Your task to perform on an android device: Go to Amazon Image 0: 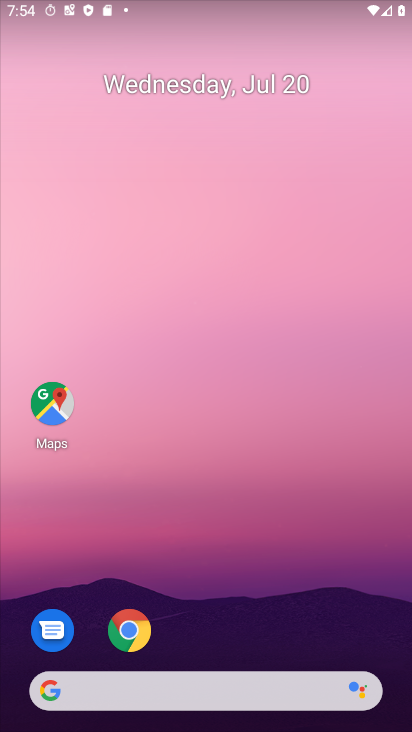
Step 0: drag from (221, 567) to (232, 167)
Your task to perform on an android device: Go to Amazon Image 1: 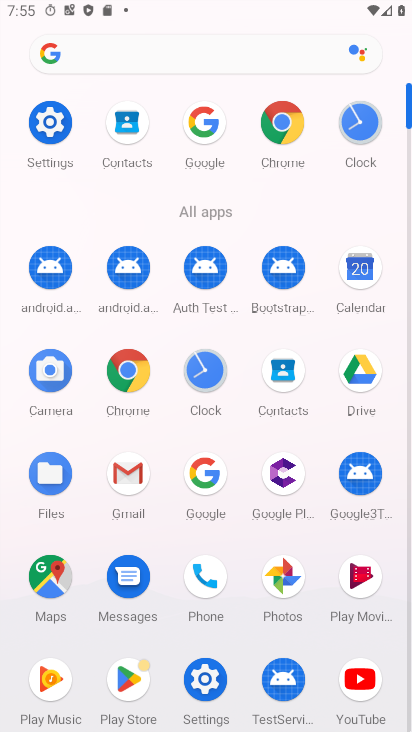
Step 1: click (293, 129)
Your task to perform on an android device: Go to Amazon Image 2: 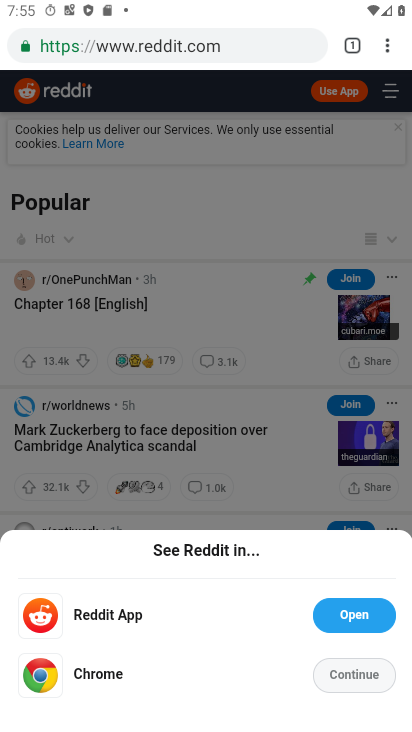
Step 2: drag from (352, 53) to (267, 329)
Your task to perform on an android device: Go to Amazon Image 3: 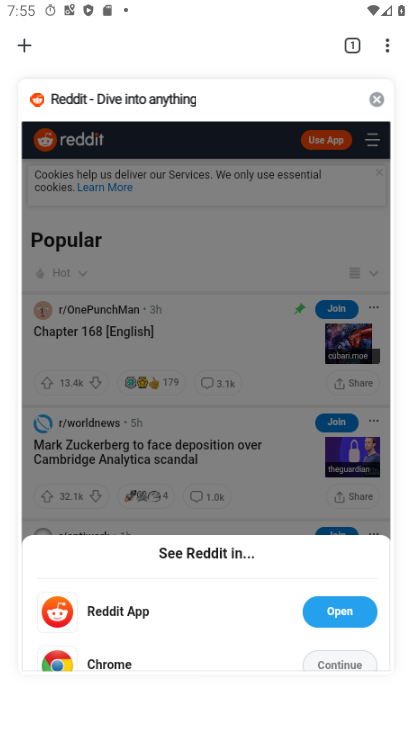
Step 3: click (23, 38)
Your task to perform on an android device: Go to Amazon Image 4: 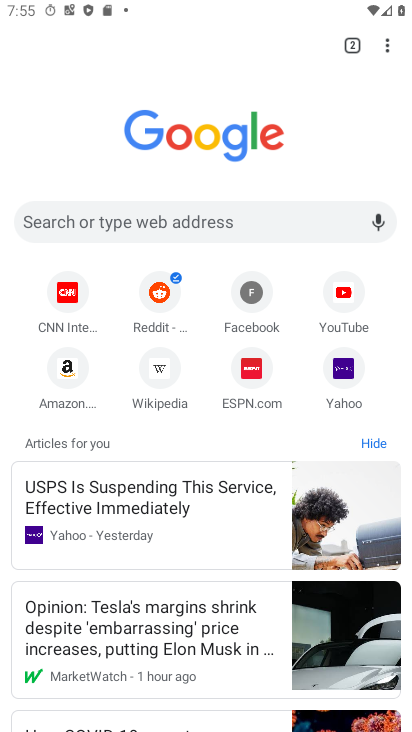
Step 4: click (87, 382)
Your task to perform on an android device: Go to Amazon Image 5: 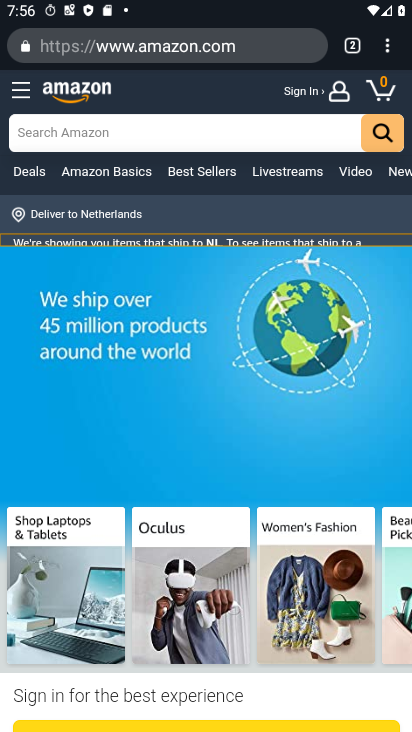
Step 5: task complete